Your task to perform on an android device: Open internet settings Image 0: 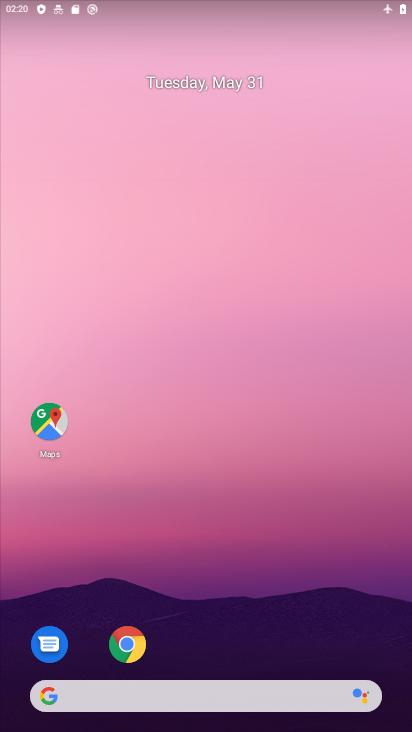
Step 0: drag from (253, 626) to (229, 67)
Your task to perform on an android device: Open internet settings Image 1: 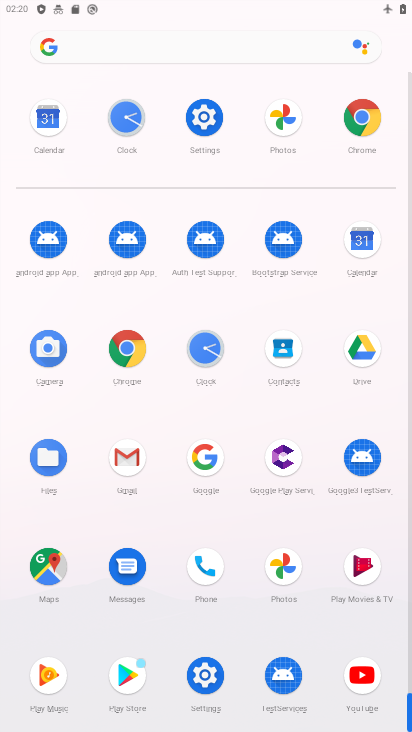
Step 1: click (208, 122)
Your task to perform on an android device: Open internet settings Image 2: 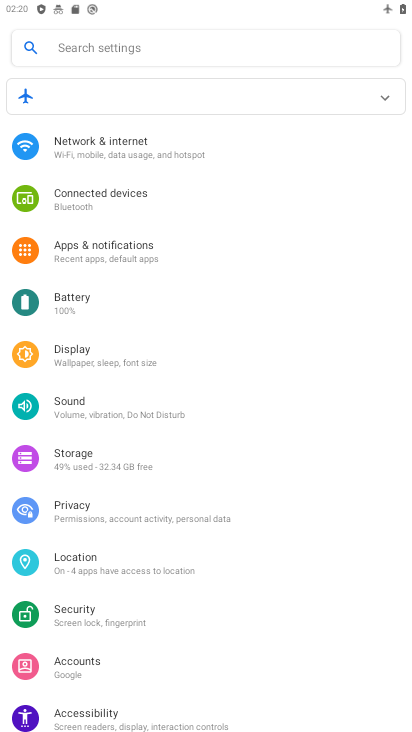
Step 2: click (140, 142)
Your task to perform on an android device: Open internet settings Image 3: 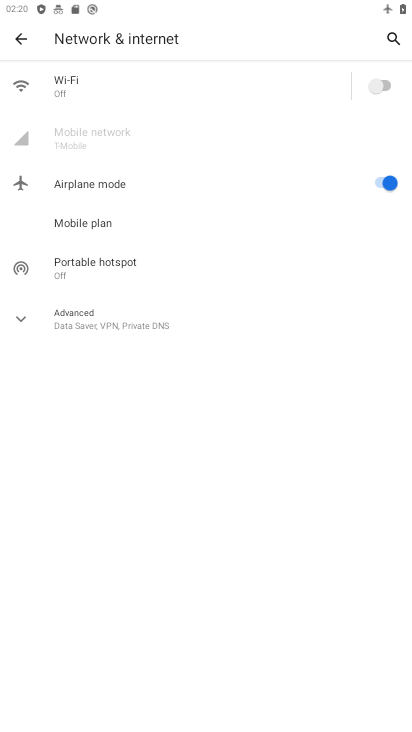
Step 3: task complete